Your task to perform on an android device: choose inbox layout in the gmail app Image 0: 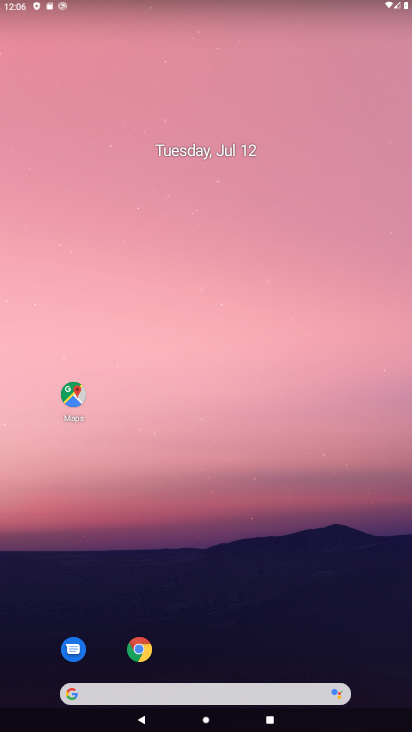
Step 0: drag from (360, 651) to (174, 19)
Your task to perform on an android device: choose inbox layout in the gmail app Image 1: 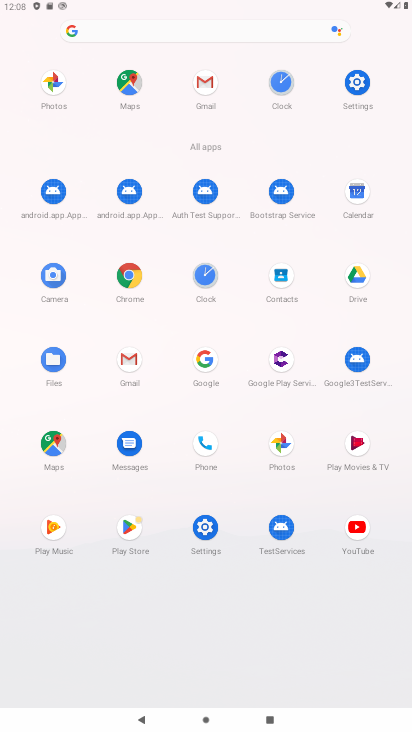
Step 1: click (132, 361)
Your task to perform on an android device: choose inbox layout in the gmail app Image 2: 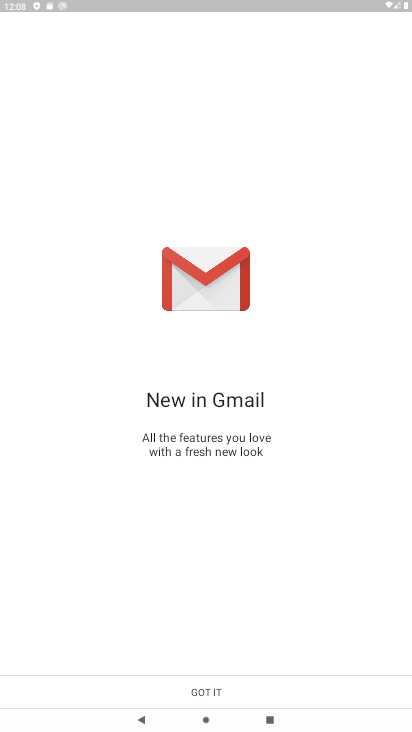
Step 2: click (204, 689)
Your task to perform on an android device: choose inbox layout in the gmail app Image 3: 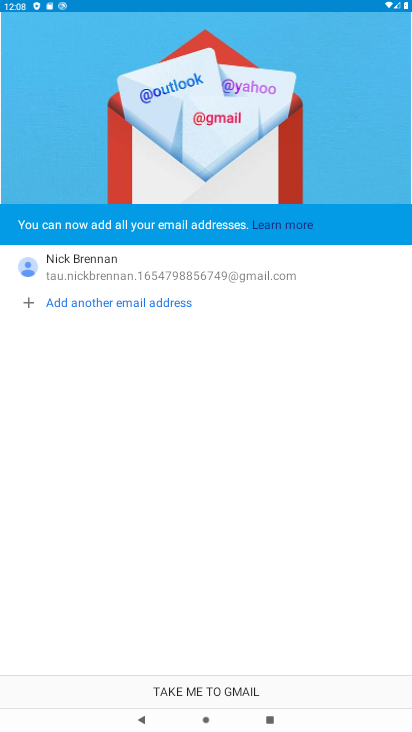
Step 3: click (203, 684)
Your task to perform on an android device: choose inbox layout in the gmail app Image 4: 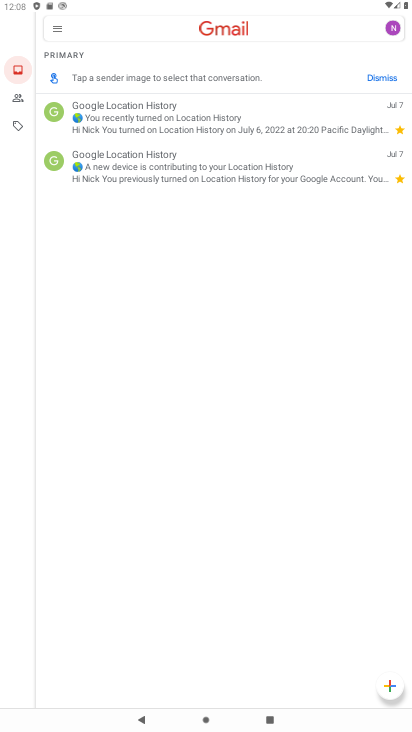
Step 4: task complete